Your task to perform on an android device: check data usage Image 0: 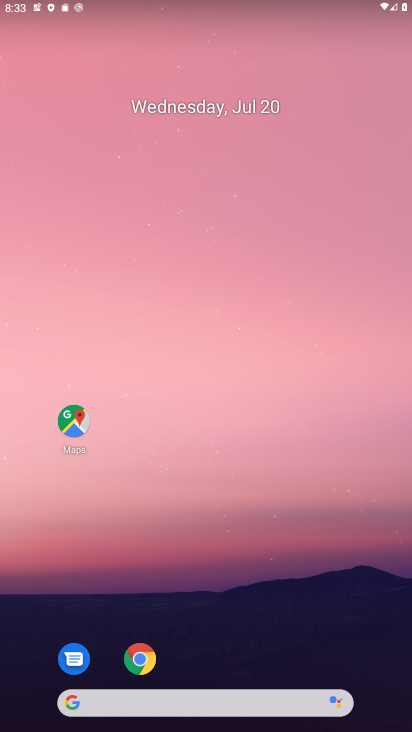
Step 0: press home button
Your task to perform on an android device: check data usage Image 1: 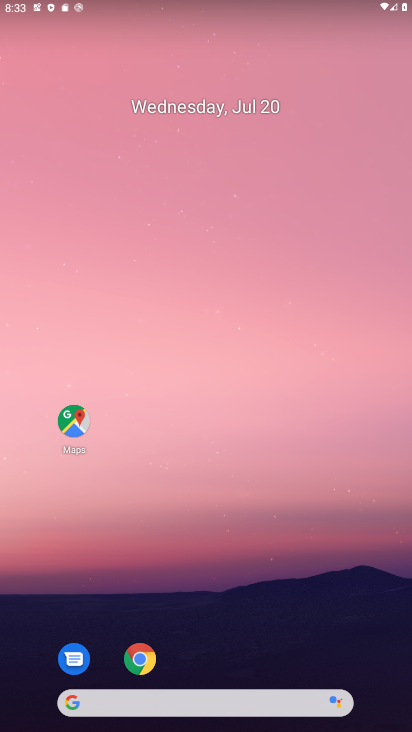
Step 1: drag from (302, 6) to (249, 436)
Your task to perform on an android device: check data usage Image 2: 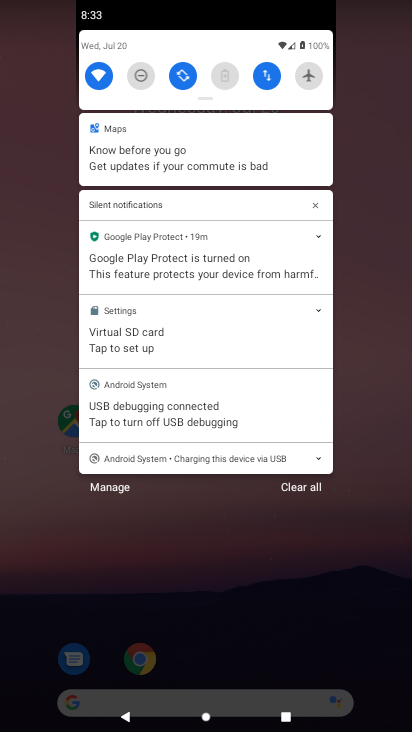
Step 2: click (278, 74)
Your task to perform on an android device: check data usage Image 3: 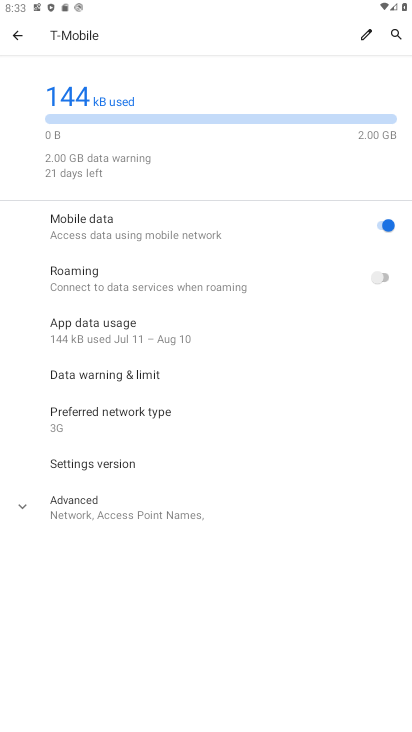
Step 3: task complete